Your task to perform on an android device: Clear the shopping cart on newegg.com. Search for "bose quietcomfort 35" on newegg.com, select the first entry, and add it to the cart. Image 0: 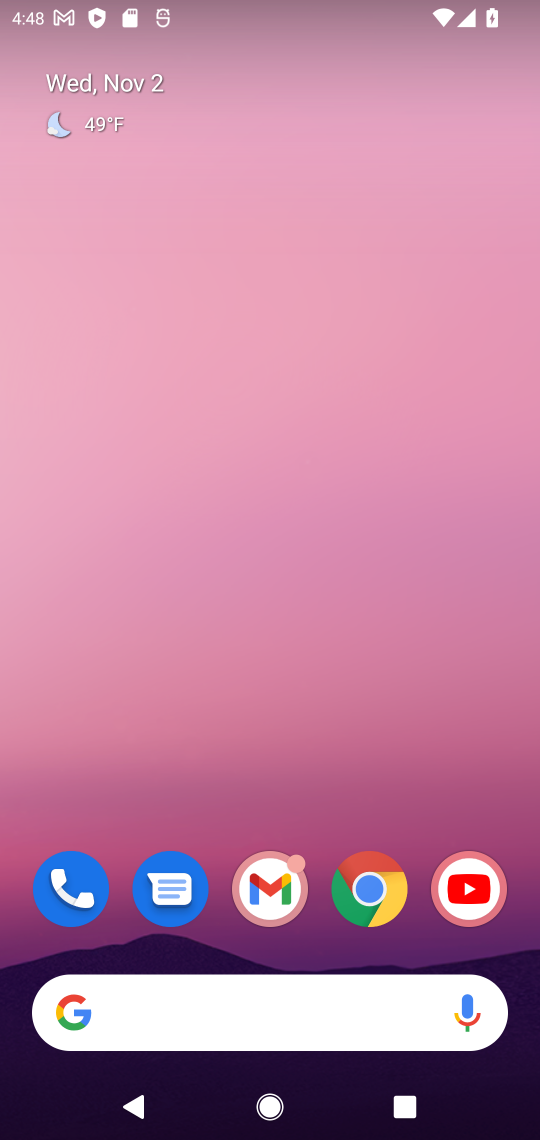
Step 0: click (363, 893)
Your task to perform on an android device: Clear the shopping cart on newegg.com. Search for "bose quietcomfort 35" on newegg.com, select the first entry, and add it to the cart. Image 1: 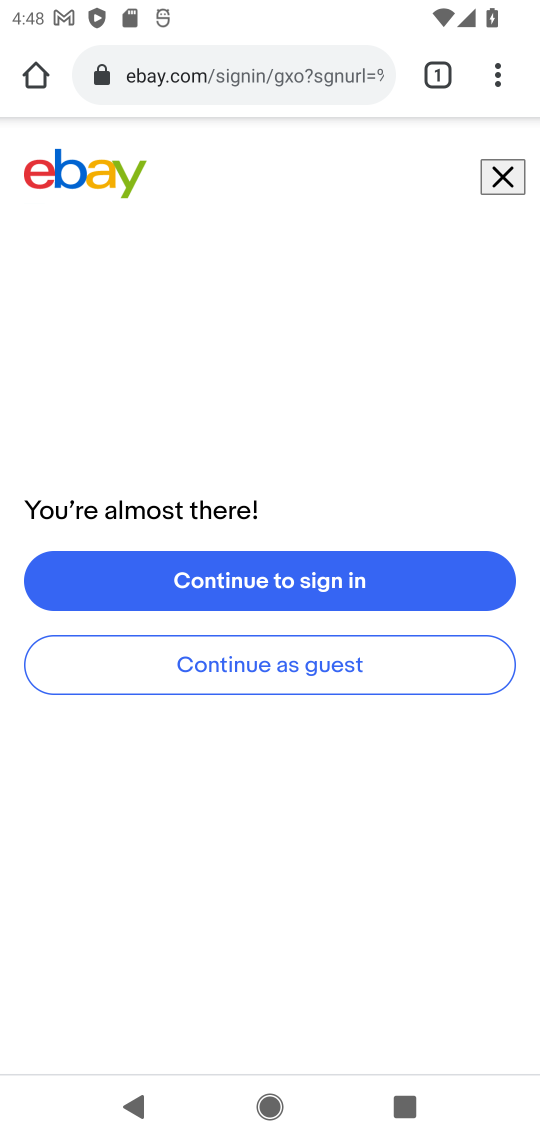
Step 1: click (193, 84)
Your task to perform on an android device: Clear the shopping cart on newegg.com. Search for "bose quietcomfort 35" on newegg.com, select the first entry, and add it to the cart. Image 2: 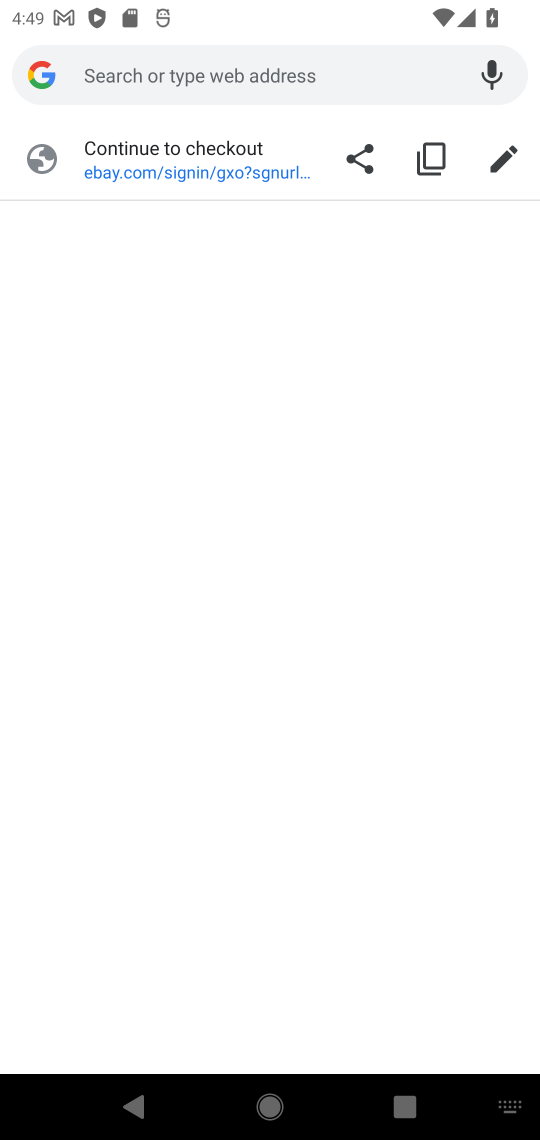
Step 2: type "newegg"
Your task to perform on an android device: Clear the shopping cart on newegg.com. Search for "bose quietcomfort 35" on newegg.com, select the first entry, and add it to the cart. Image 3: 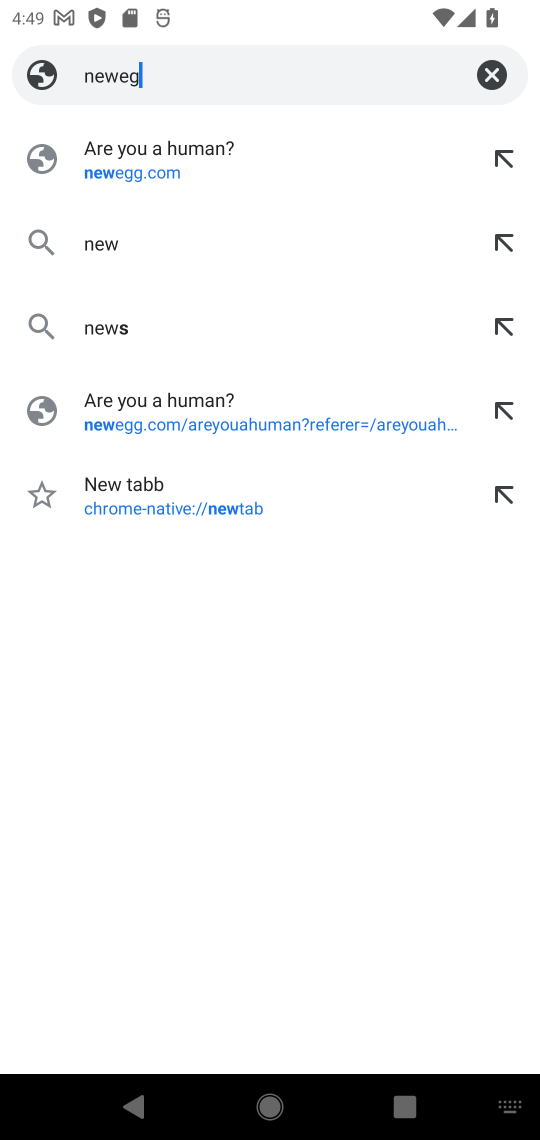
Step 3: press enter
Your task to perform on an android device: Clear the shopping cart on newegg.com. Search for "bose quietcomfort 35" on newegg.com, select the first entry, and add it to the cart. Image 4: 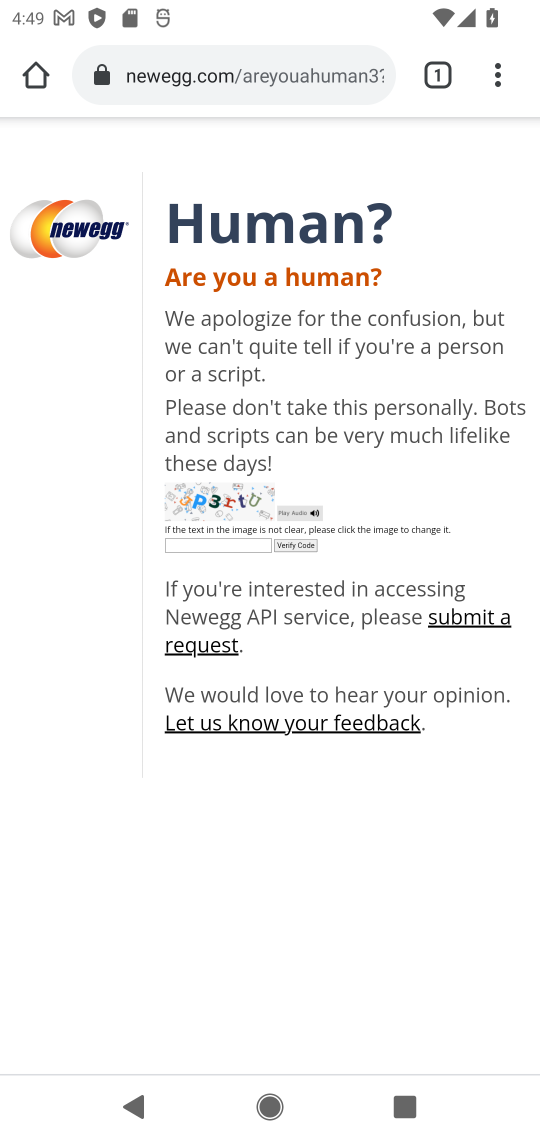
Step 4: click (232, 545)
Your task to perform on an android device: Clear the shopping cart on newegg.com. Search for "bose quietcomfort 35" on newegg.com, select the first entry, and add it to the cart. Image 5: 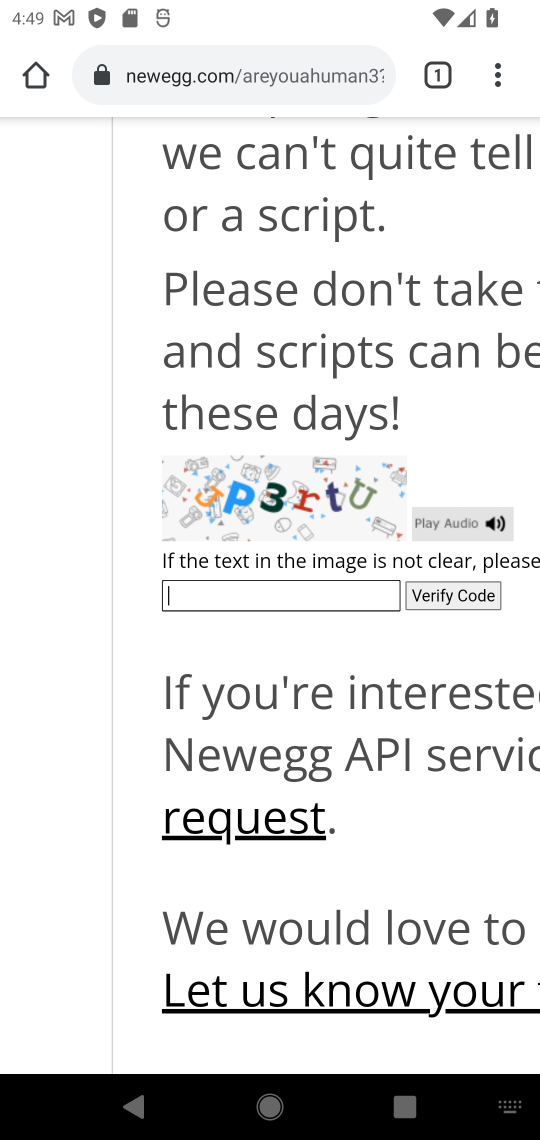
Step 5: type "p3rtu"
Your task to perform on an android device: Clear the shopping cart on newegg.com. Search for "bose quietcomfort 35" on newegg.com, select the first entry, and add it to the cart. Image 6: 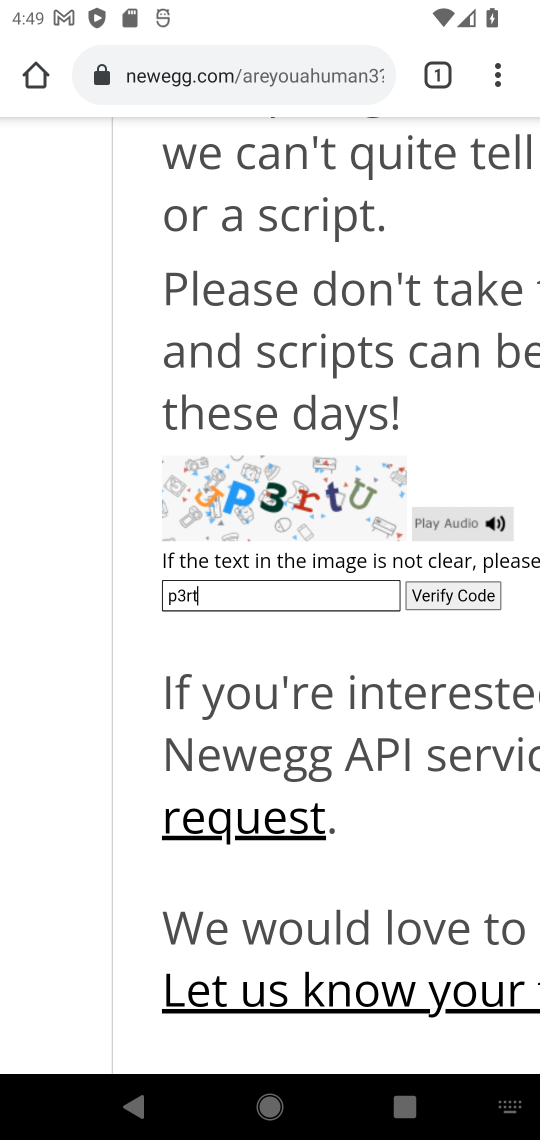
Step 6: press enter
Your task to perform on an android device: Clear the shopping cart on newegg.com. Search for "bose quietcomfort 35" on newegg.com, select the first entry, and add it to the cart. Image 7: 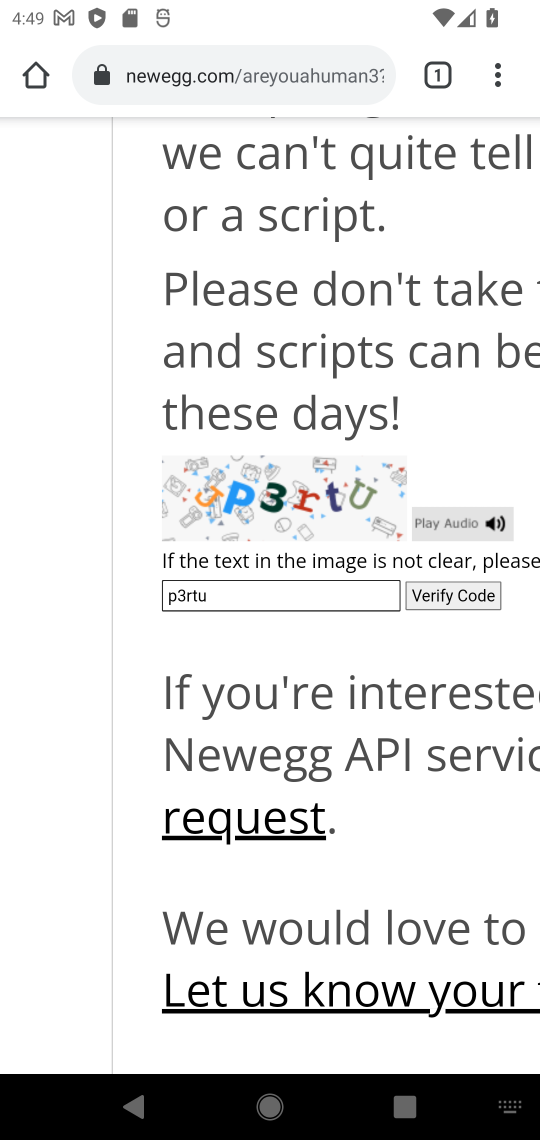
Step 7: click (456, 590)
Your task to perform on an android device: Clear the shopping cart on newegg.com. Search for "bose quietcomfort 35" on newegg.com, select the first entry, and add it to the cart. Image 8: 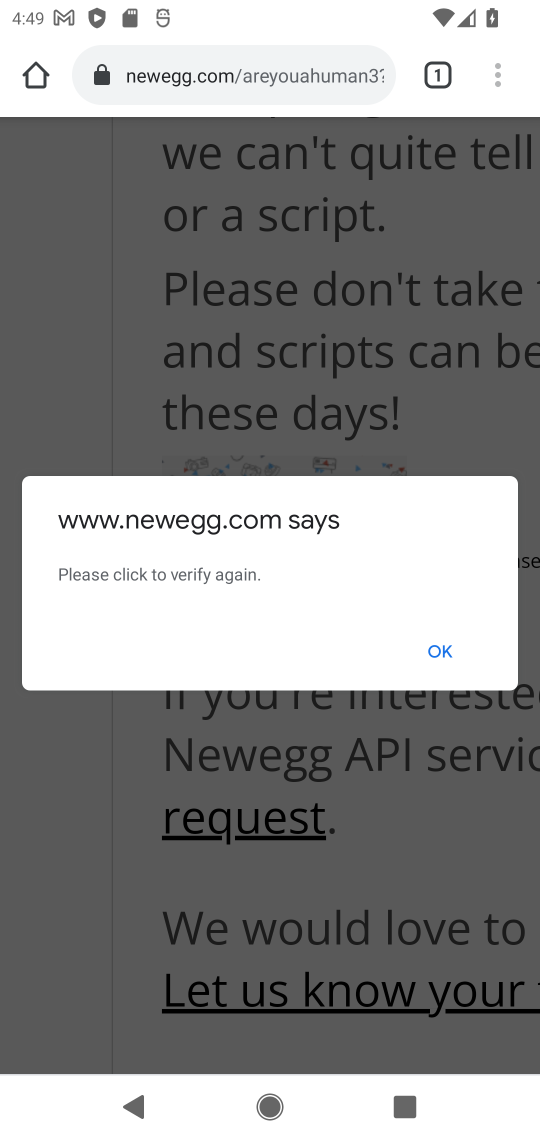
Step 8: click (434, 652)
Your task to perform on an android device: Clear the shopping cart on newegg.com. Search for "bose quietcomfort 35" on newegg.com, select the first entry, and add it to the cart. Image 9: 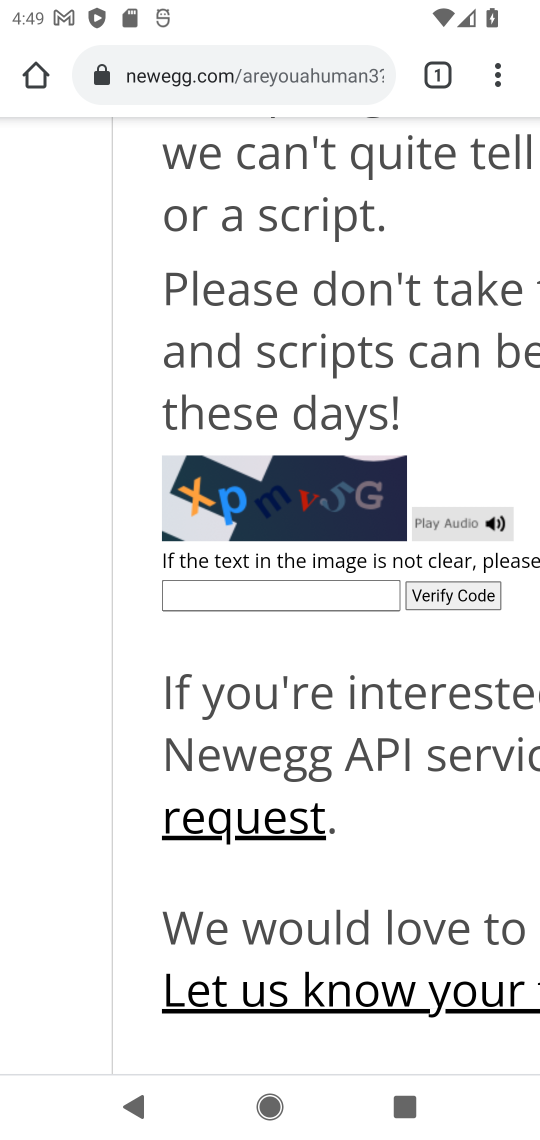
Step 9: click (247, 588)
Your task to perform on an android device: Clear the shopping cart on newegg.com. Search for "bose quietcomfort 35" on newegg.com, select the first entry, and add it to the cart. Image 10: 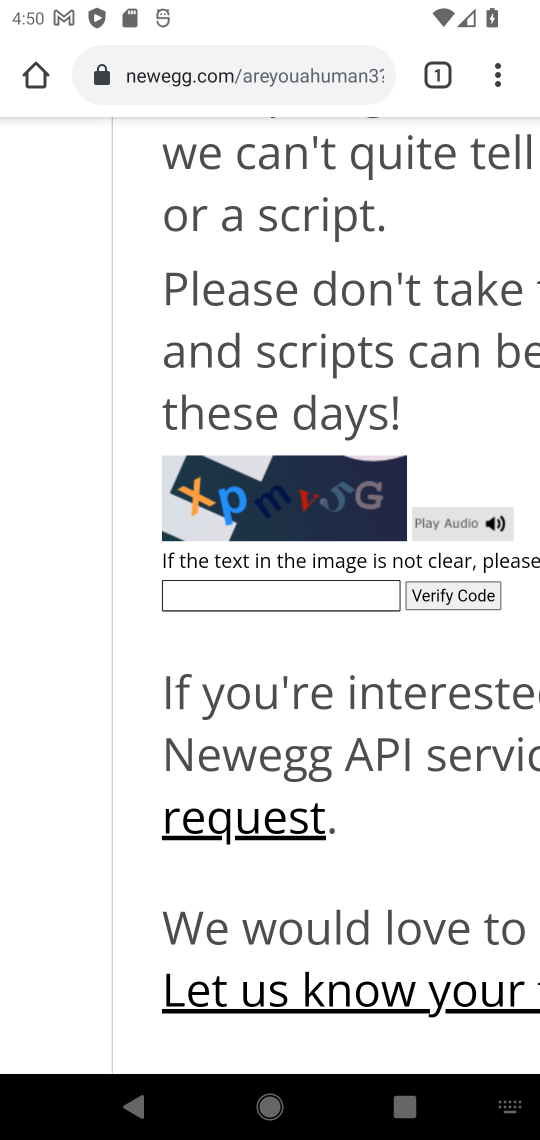
Step 10: type "Xpmv5G"
Your task to perform on an android device: Clear the shopping cart on newegg.com. Search for "bose quietcomfort 35" on newegg.com, select the first entry, and add it to the cart. Image 11: 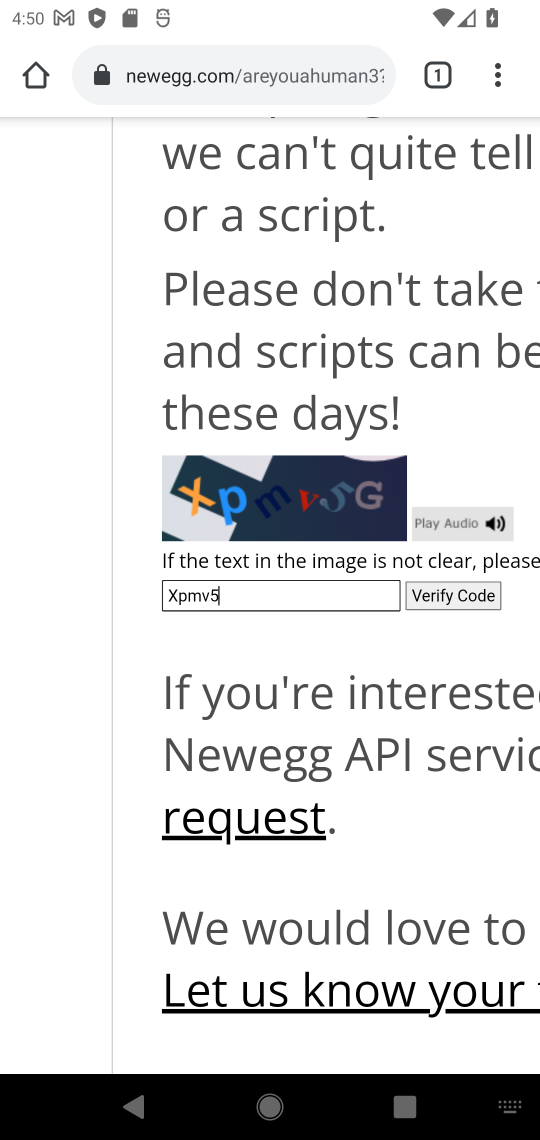
Step 11: press enter
Your task to perform on an android device: Clear the shopping cart on newegg.com. Search for "bose quietcomfort 35" on newegg.com, select the first entry, and add it to the cart. Image 12: 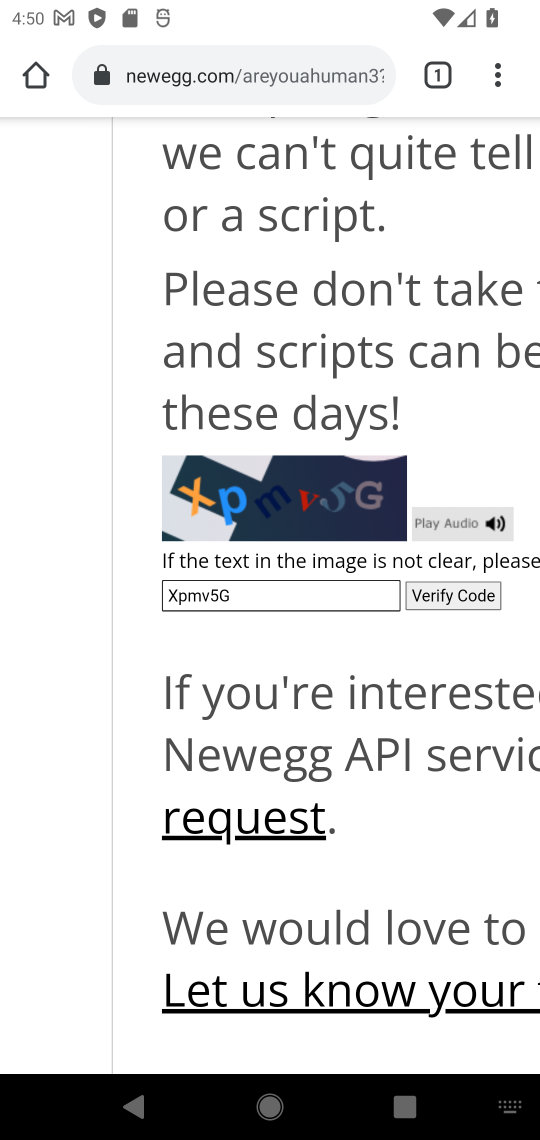
Step 12: click (459, 595)
Your task to perform on an android device: Clear the shopping cart on newegg.com. Search for "bose quietcomfort 35" on newegg.com, select the first entry, and add it to the cart. Image 13: 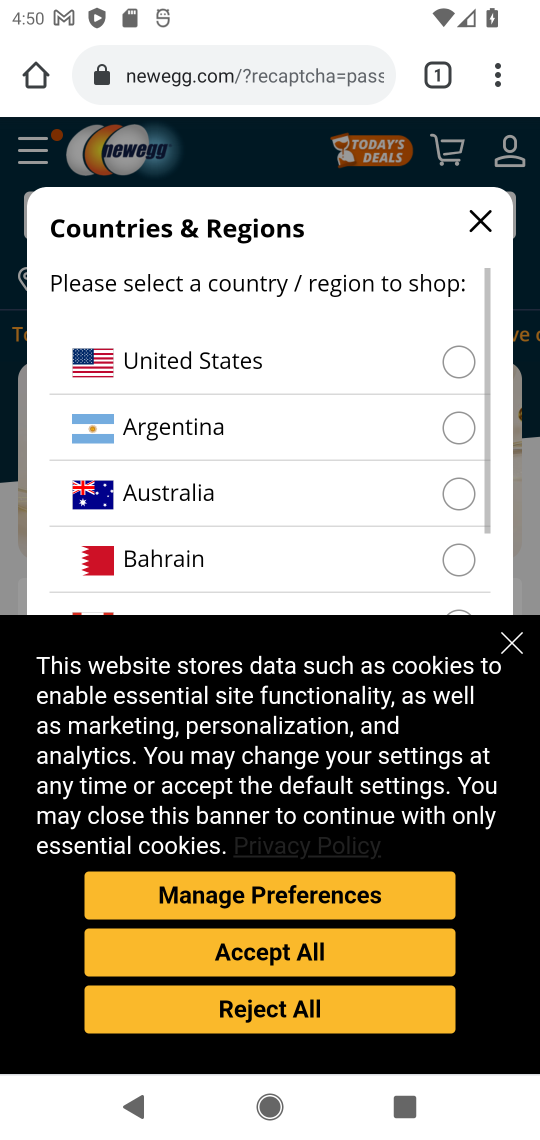
Step 13: click (519, 647)
Your task to perform on an android device: Clear the shopping cart on newegg.com. Search for "bose quietcomfort 35" on newegg.com, select the first entry, and add it to the cart. Image 14: 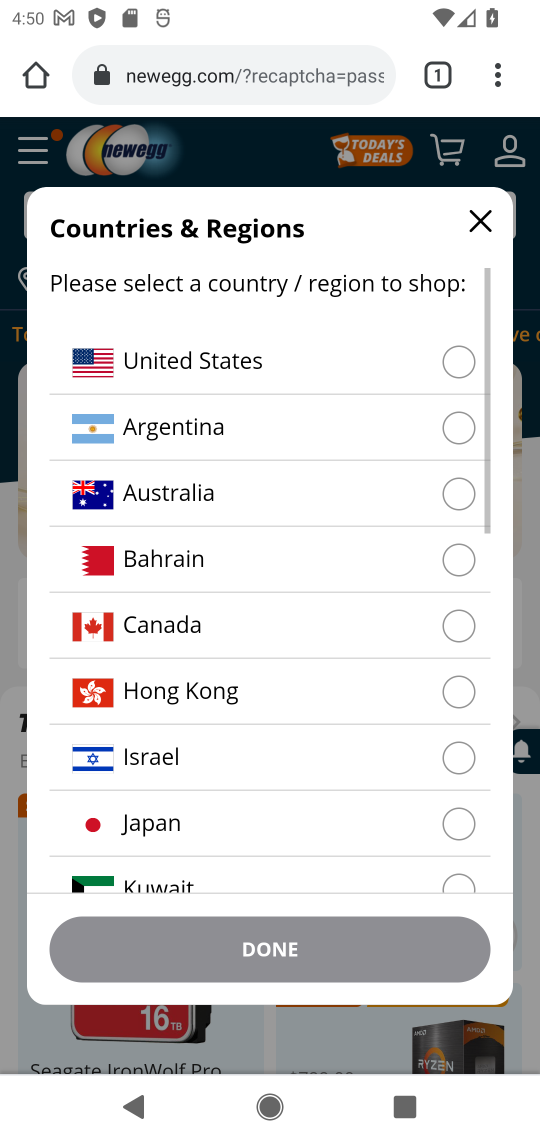
Step 14: click (474, 221)
Your task to perform on an android device: Clear the shopping cart on newegg.com. Search for "bose quietcomfort 35" on newegg.com, select the first entry, and add it to the cart. Image 15: 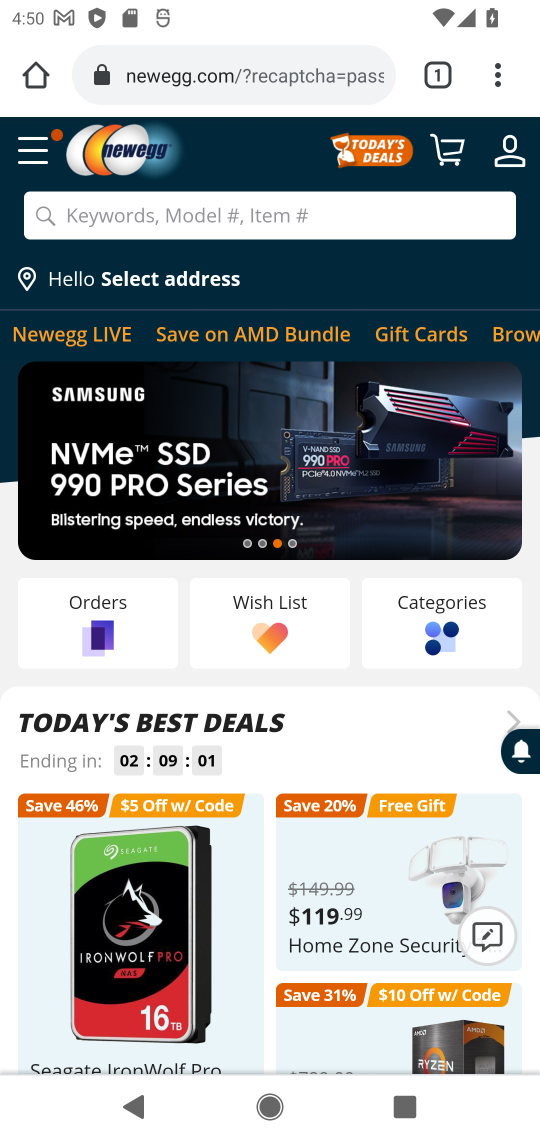
Step 15: click (249, 212)
Your task to perform on an android device: Clear the shopping cart on newegg.com. Search for "bose quietcomfort 35" on newegg.com, select the first entry, and add it to the cart. Image 16: 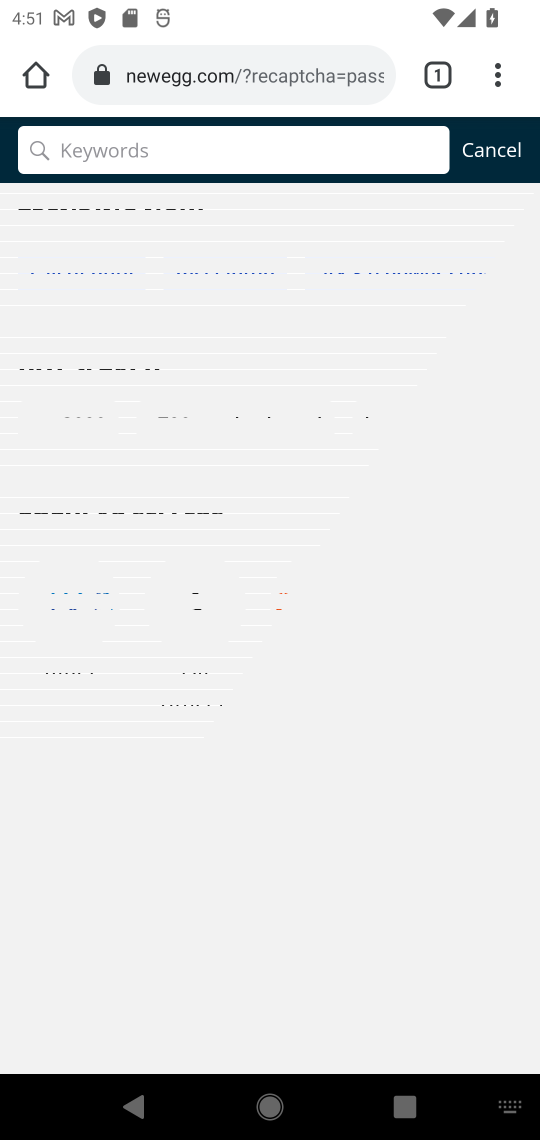
Step 16: press enter
Your task to perform on an android device: Clear the shopping cart on newegg.com. Search for "bose quietcomfort 35" on newegg.com, select the first entry, and add it to the cart. Image 17: 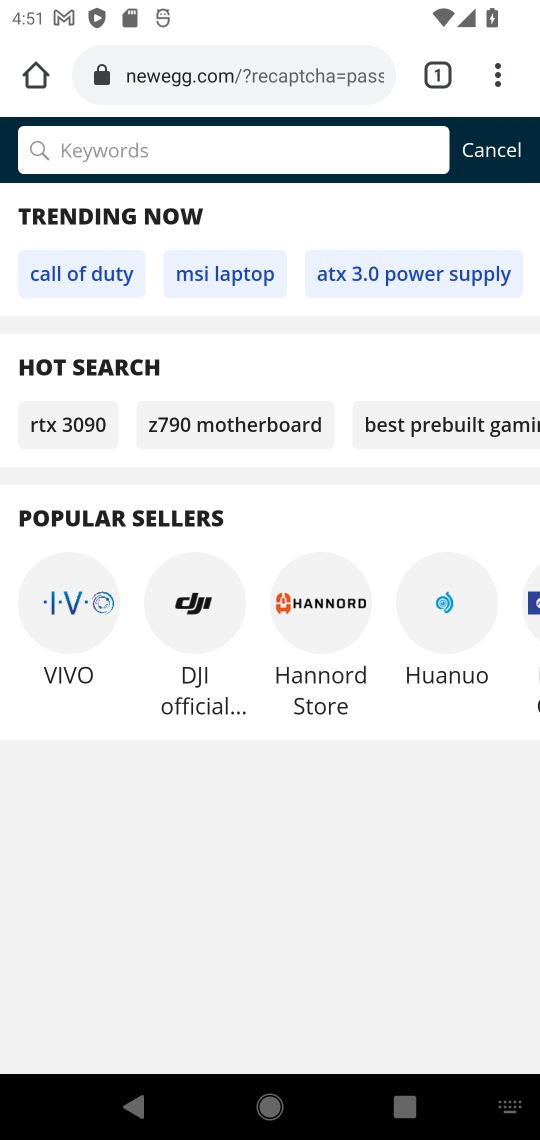
Step 17: type "bose quietcomfort 35"
Your task to perform on an android device: Clear the shopping cart on newegg.com. Search for "bose quietcomfort 35" on newegg.com, select the first entry, and add it to the cart. Image 18: 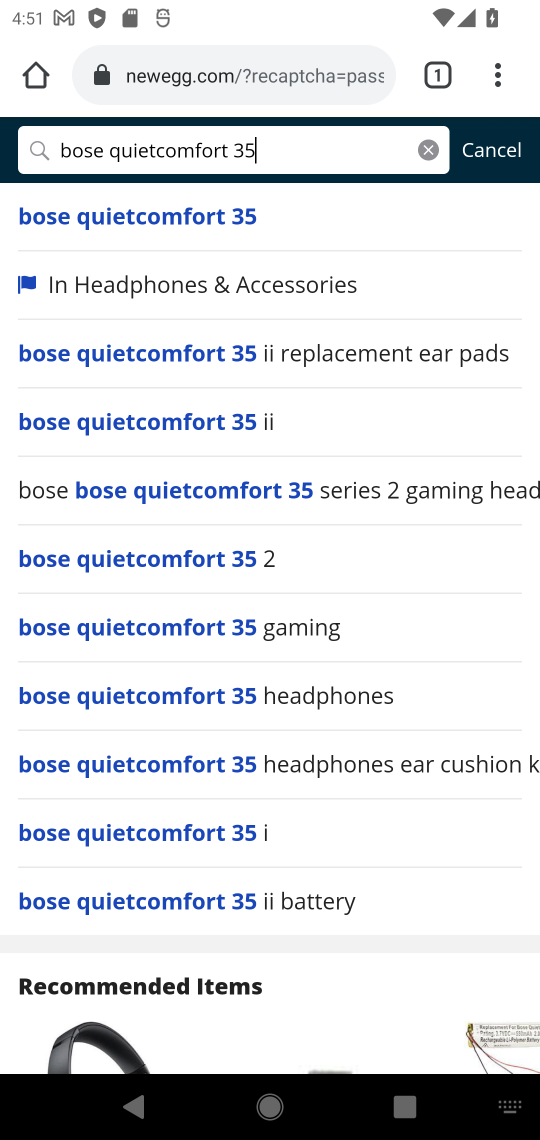
Step 18: click (185, 212)
Your task to perform on an android device: Clear the shopping cart on newegg.com. Search for "bose quietcomfort 35" on newegg.com, select the first entry, and add it to the cart. Image 19: 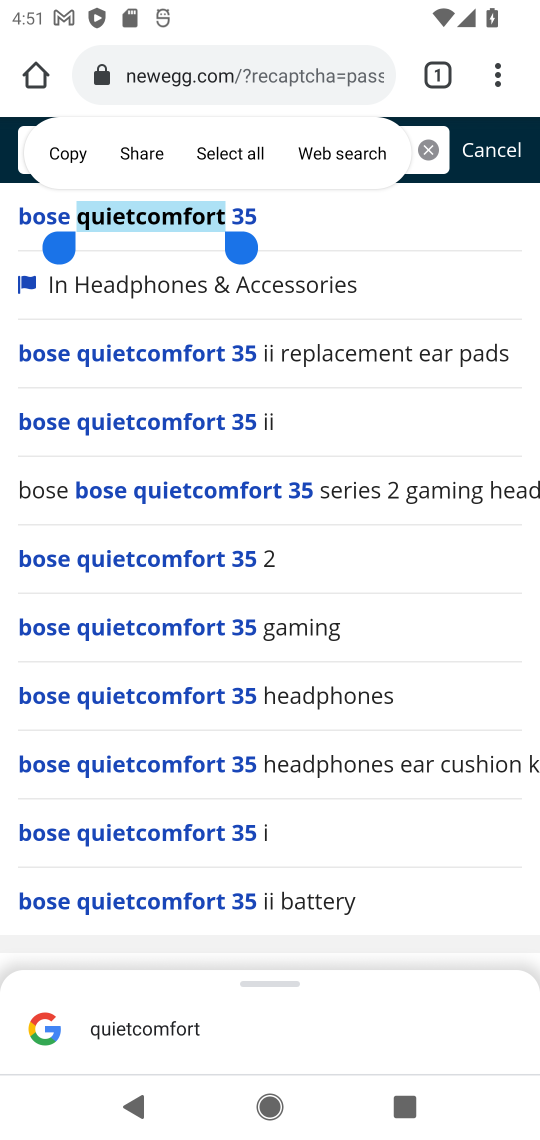
Step 19: click (285, 204)
Your task to perform on an android device: Clear the shopping cart on newegg.com. Search for "bose quietcomfort 35" on newegg.com, select the first entry, and add it to the cart. Image 20: 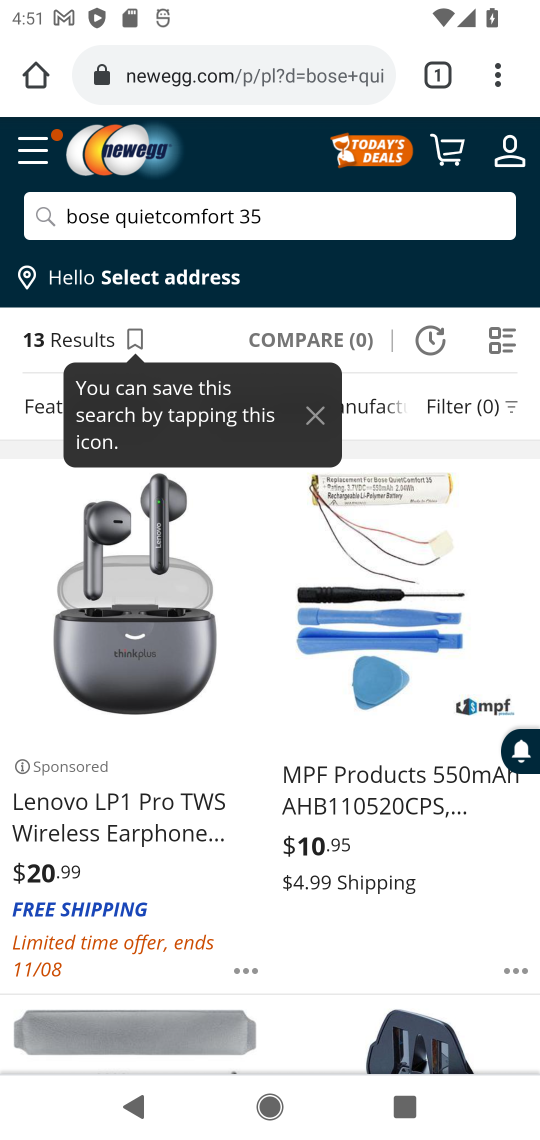
Step 20: click (146, 702)
Your task to perform on an android device: Clear the shopping cart on newegg.com. Search for "bose quietcomfort 35" on newegg.com, select the first entry, and add it to the cart. Image 21: 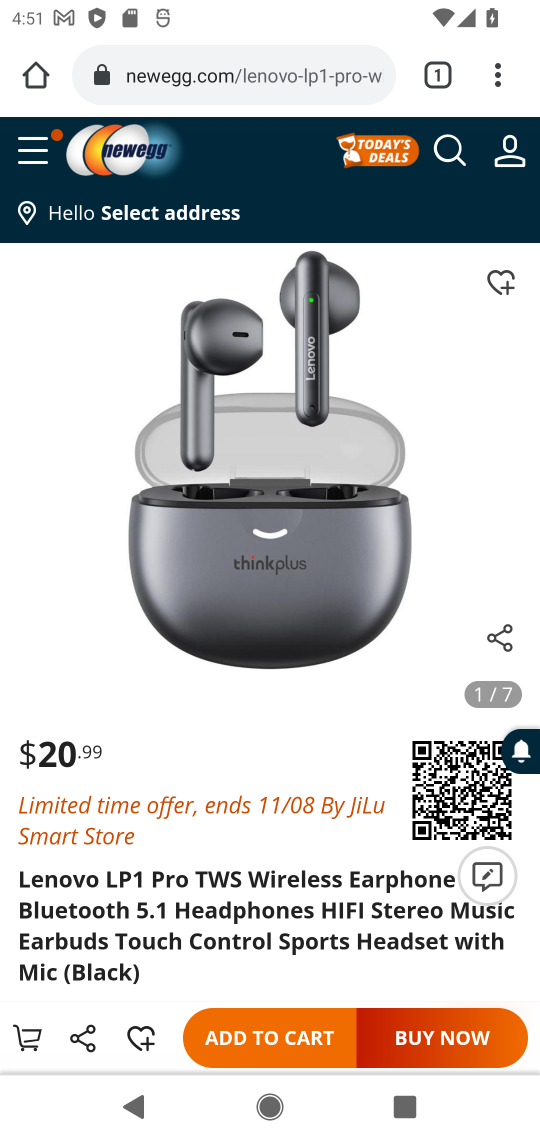
Step 21: task complete